Your task to perform on an android device: allow notifications from all sites in the chrome app Image 0: 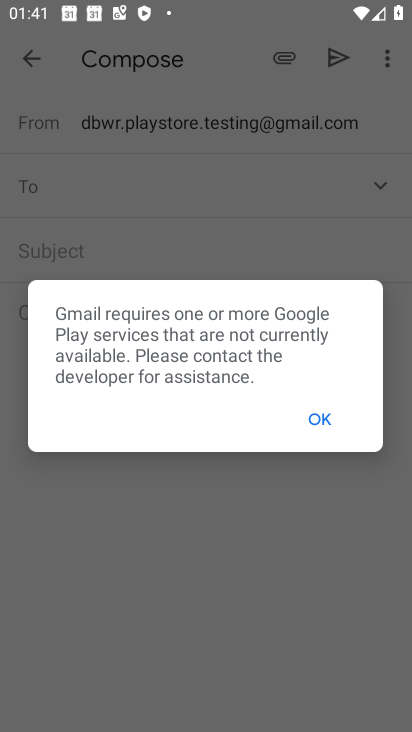
Step 0: press home button
Your task to perform on an android device: allow notifications from all sites in the chrome app Image 1: 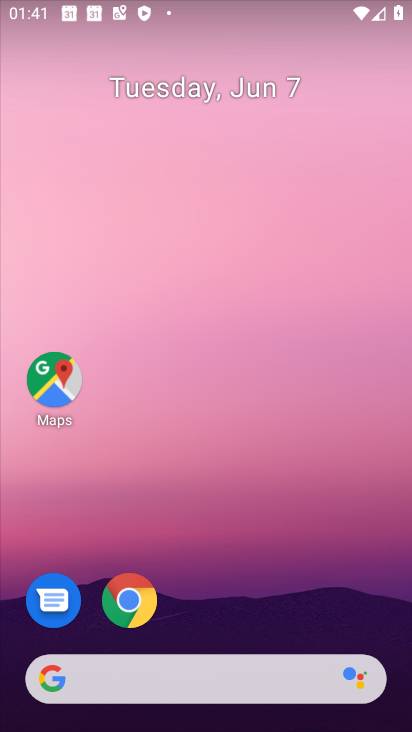
Step 1: click (124, 601)
Your task to perform on an android device: allow notifications from all sites in the chrome app Image 2: 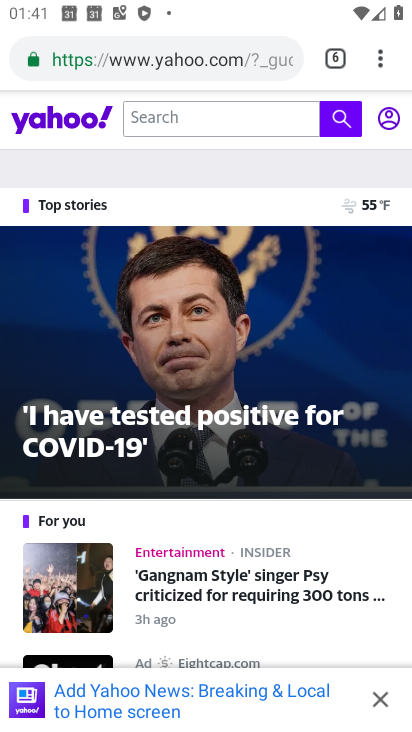
Step 2: click (379, 65)
Your task to perform on an android device: allow notifications from all sites in the chrome app Image 3: 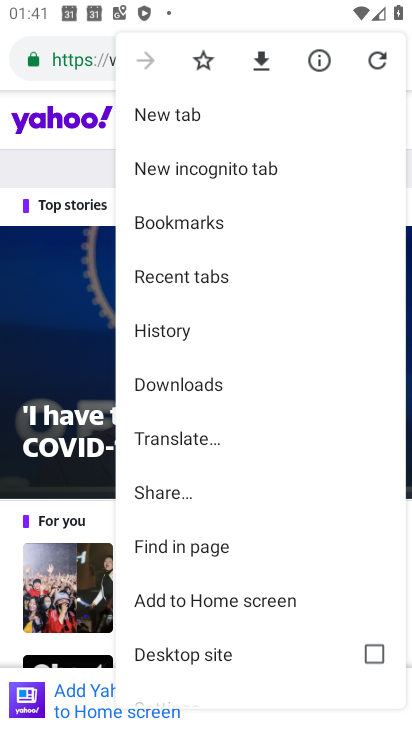
Step 3: drag from (190, 675) to (180, 227)
Your task to perform on an android device: allow notifications from all sites in the chrome app Image 4: 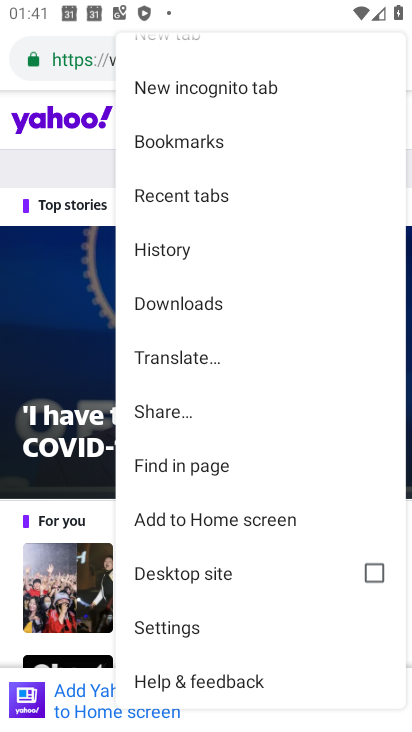
Step 4: click (180, 627)
Your task to perform on an android device: allow notifications from all sites in the chrome app Image 5: 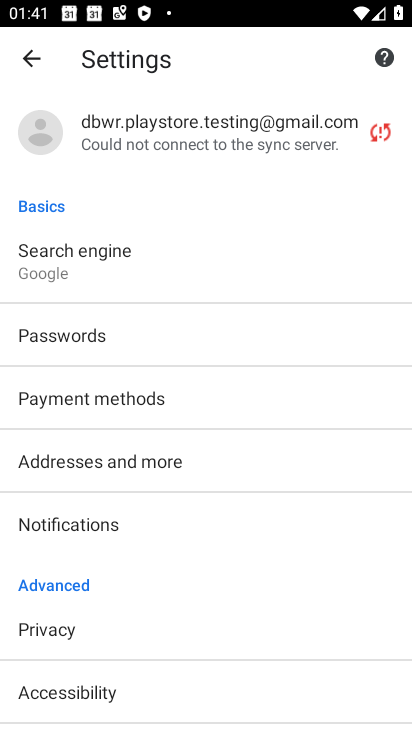
Step 5: drag from (90, 681) to (95, 294)
Your task to perform on an android device: allow notifications from all sites in the chrome app Image 6: 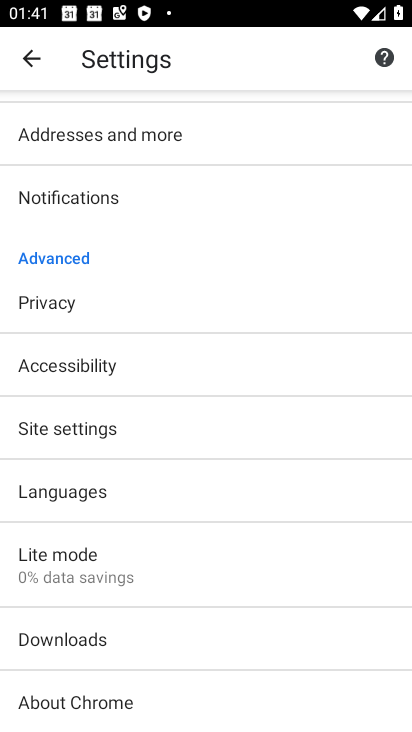
Step 6: click (82, 426)
Your task to perform on an android device: allow notifications from all sites in the chrome app Image 7: 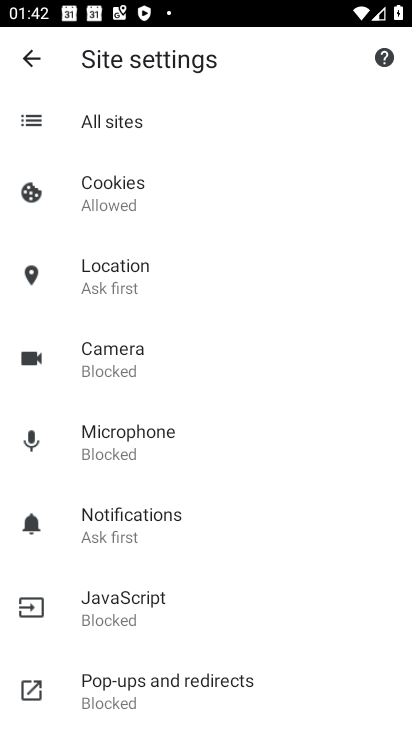
Step 7: click (100, 528)
Your task to perform on an android device: allow notifications from all sites in the chrome app Image 8: 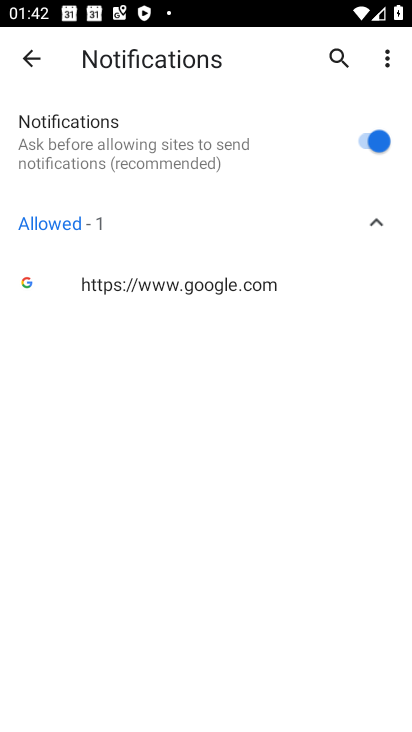
Step 8: task complete